Your task to perform on an android device: toggle location history Image 0: 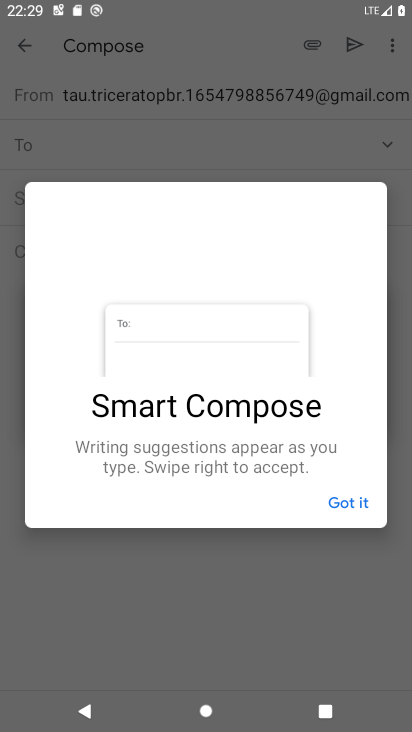
Step 0: click (351, 508)
Your task to perform on an android device: toggle location history Image 1: 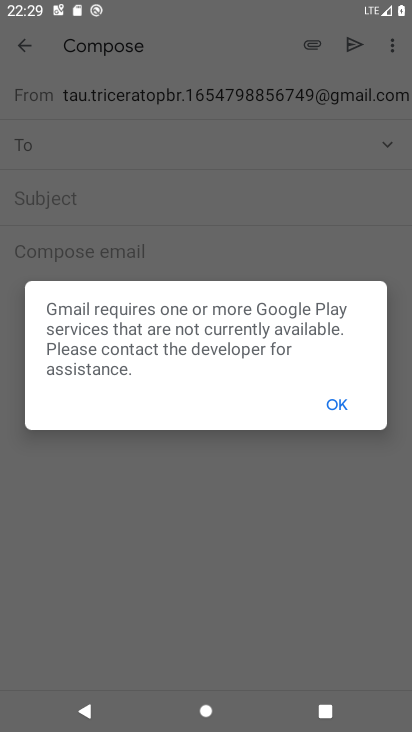
Step 1: click (342, 399)
Your task to perform on an android device: toggle location history Image 2: 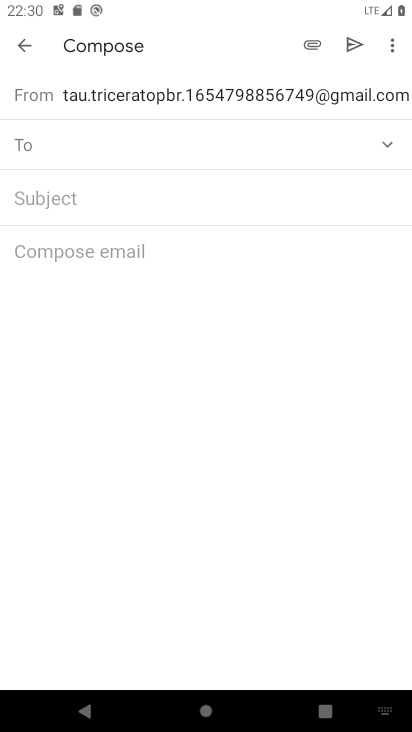
Step 2: press home button
Your task to perform on an android device: toggle location history Image 3: 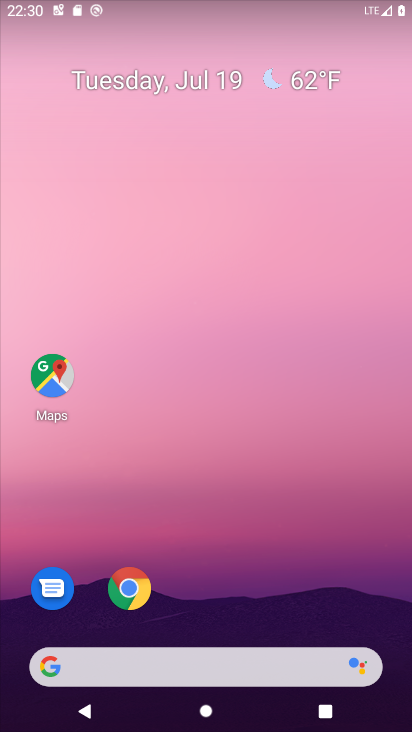
Step 3: drag from (178, 590) to (230, 119)
Your task to perform on an android device: toggle location history Image 4: 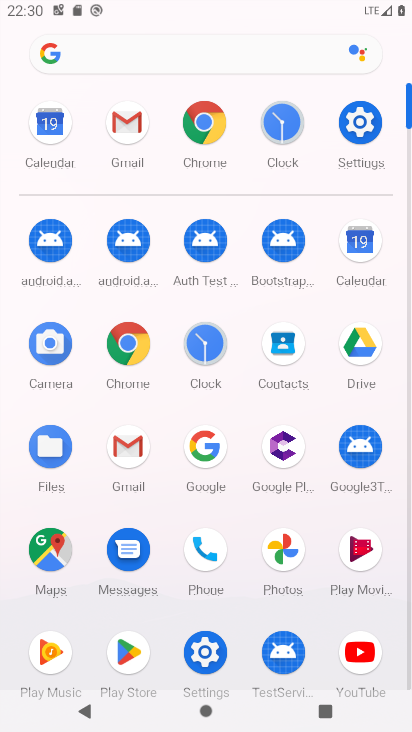
Step 4: click (352, 127)
Your task to perform on an android device: toggle location history Image 5: 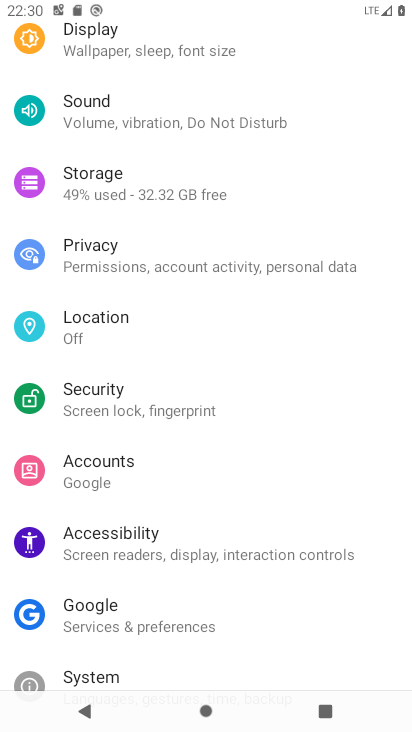
Step 5: click (92, 341)
Your task to perform on an android device: toggle location history Image 6: 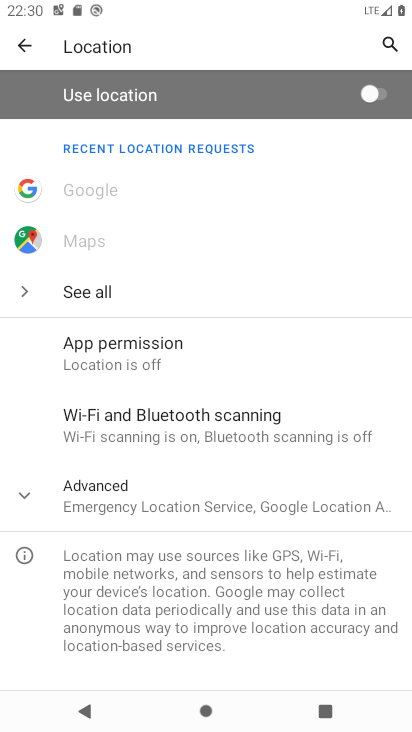
Step 6: click (67, 496)
Your task to perform on an android device: toggle location history Image 7: 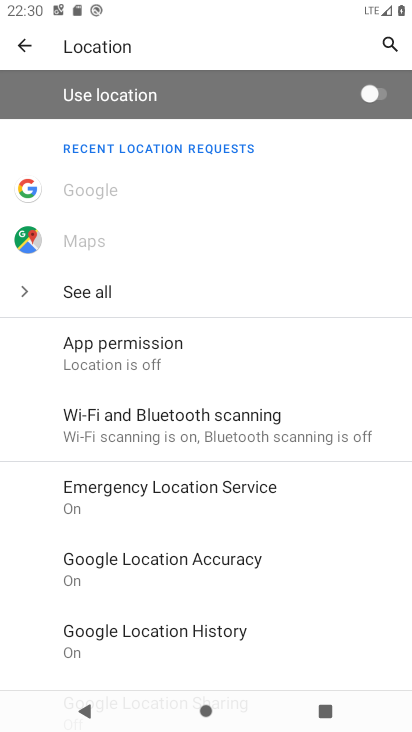
Step 7: click (178, 633)
Your task to perform on an android device: toggle location history Image 8: 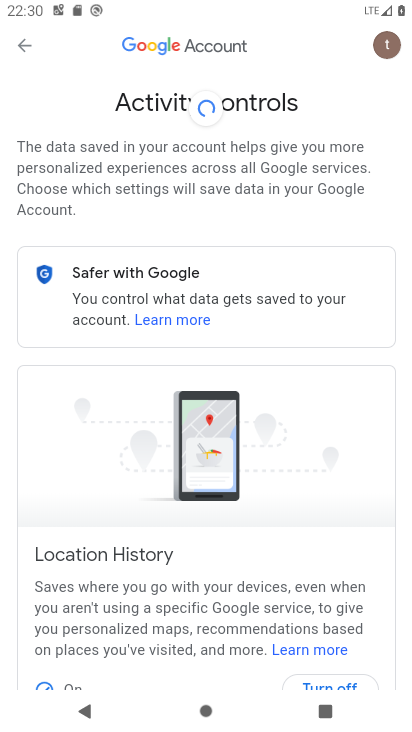
Step 8: drag from (219, 490) to (287, 171)
Your task to perform on an android device: toggle location history Image 9: 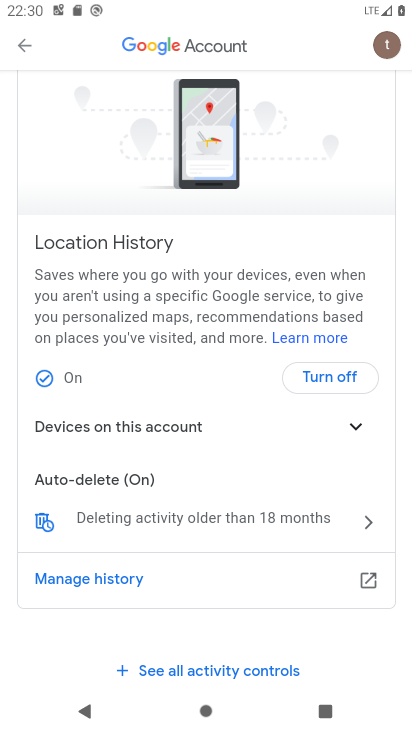
Step 9: click (322, 373)
Your task to perform on an android device: toggle location history Image 10: 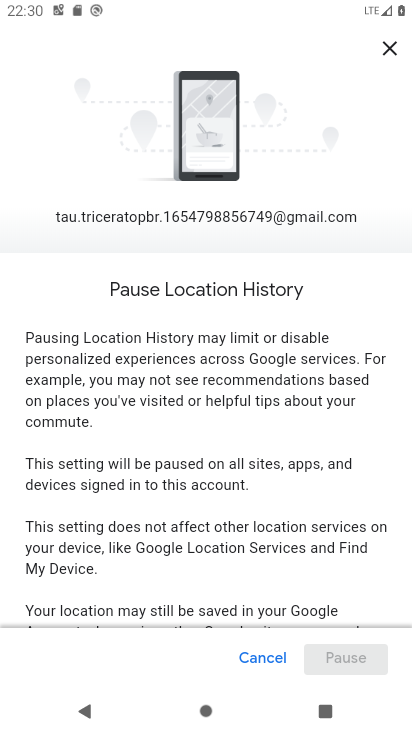
Step 10: drag from (261, 525) to (287, 265)
Your task to perform on an android device: toggle location history Image 11: 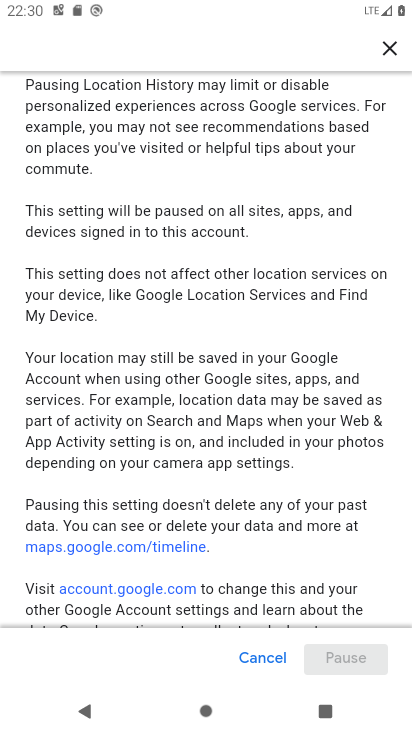
Step 11: drag from (252, 518) to (260, 182)
Your task to perform on an android device: toggle location history Image 12: 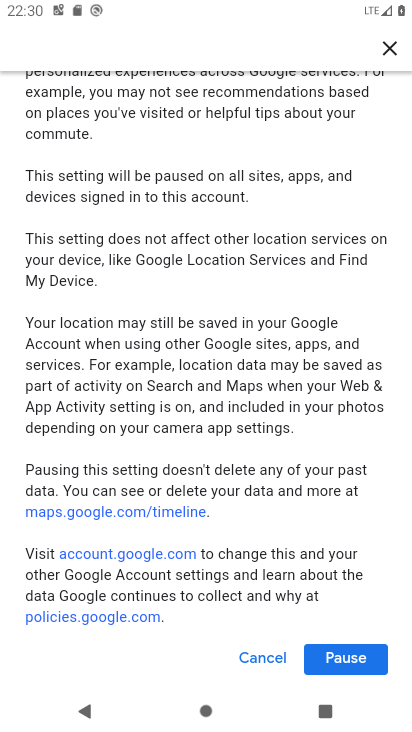
Step 12: drag from (251, 520) to (249, 243)
Your task to perform on an android device: toggle location history Image 13: 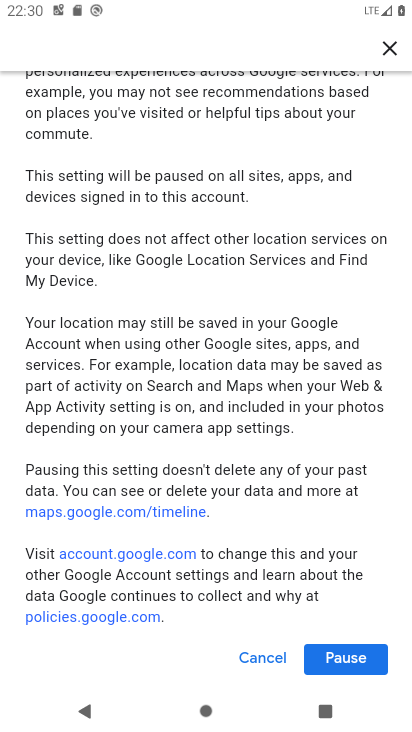
Step 13: click (335, 663)
Your task to perform on an android device: toggle location history Image 14: 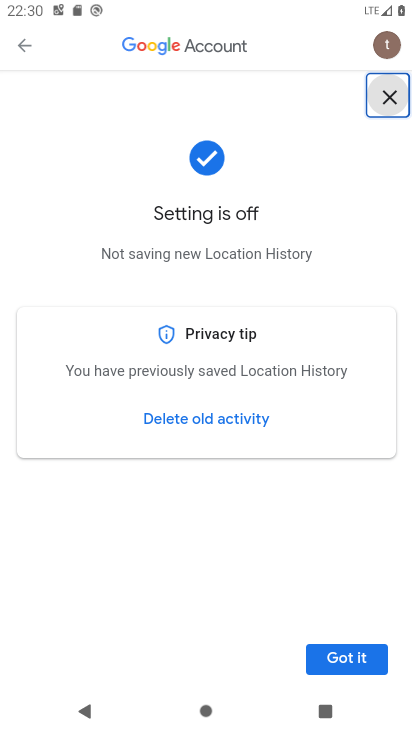
Step 14: click (335, 663)
Your task to perform on an android device: toggle location history Image 15: 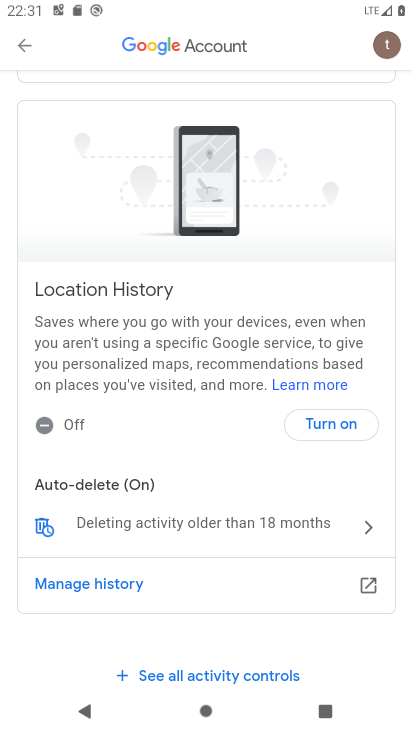
Step 15: task complete